Your task to perform on an android device: toggle priority inbox in the gmail app Image 0: 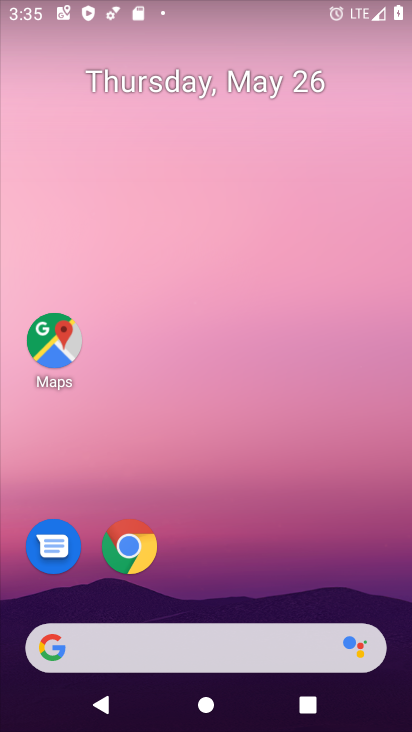
Step 0: drag from (223, 584) to (278, 143)
Your task to perform on an android device: toggle priority inbox in the gmail app Image 1: 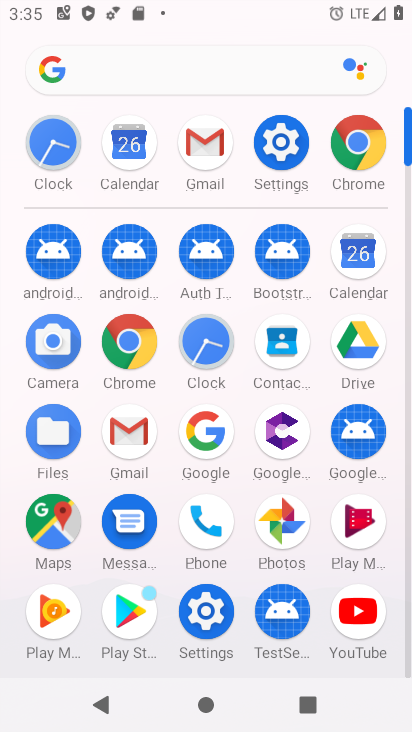
Step 1: click (127, 426)
Your task to perform on an android device: toggle priority inbox in the gmail app Image 2: 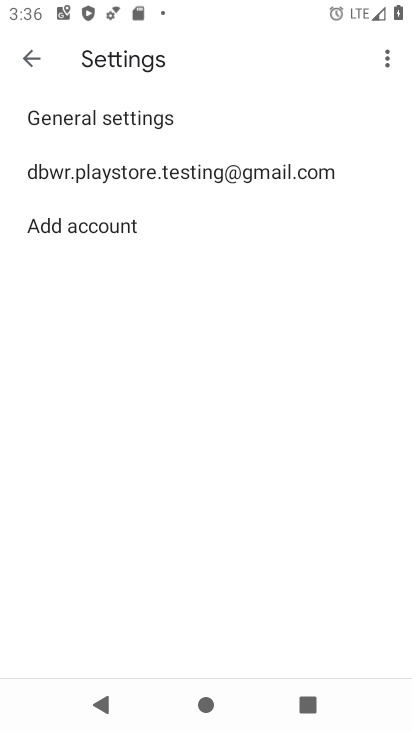
Step 2: click (161, 172)
Your task to perform on an android device: toggle priority inbox in the gmail app Image 3: 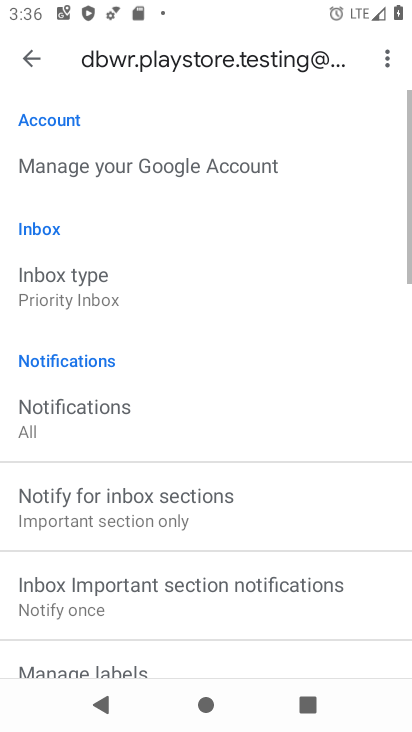
Step 3: click (59, 288)
Your task to perform on an android device: toggle priority inbox in the gmail app Image 4: 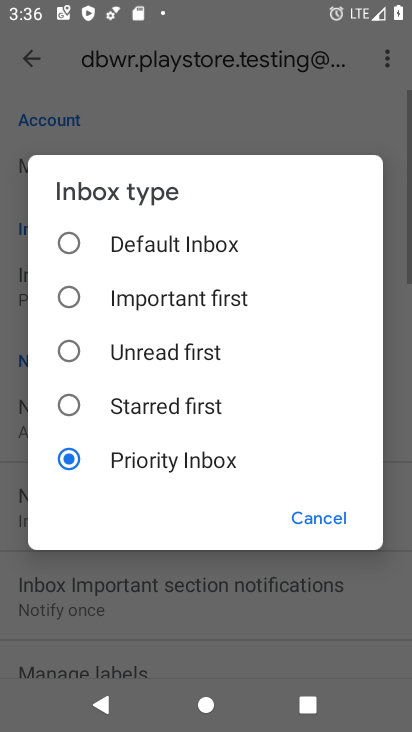
Step 4: click (70, 466)
Your task to perform on an android device: toggle priority inbox in the gmail app Image 5: 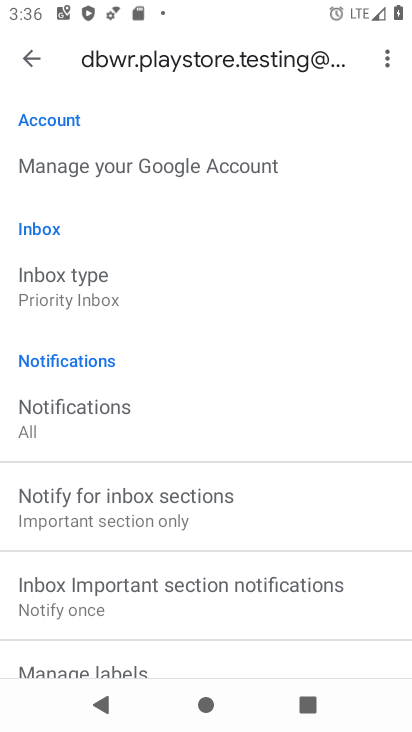
Step 5: task complete